Your task to perform on an android device: add a contact in the contacts app Image 0: 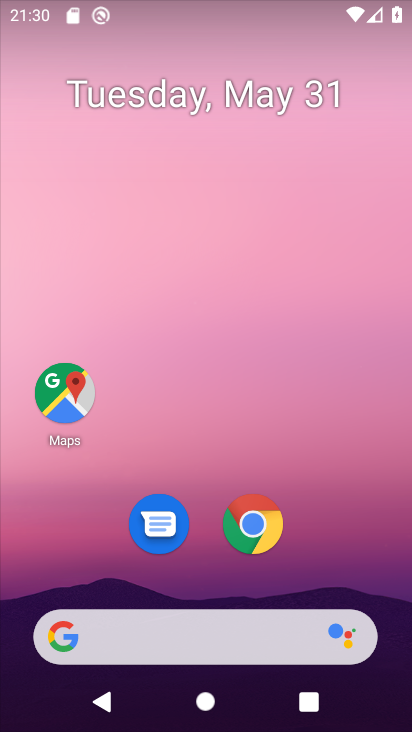
Step 0: drag from (247, 430) to (221, 3)
Your task to perform on an android device: add a contact in the contacts app Image 1: 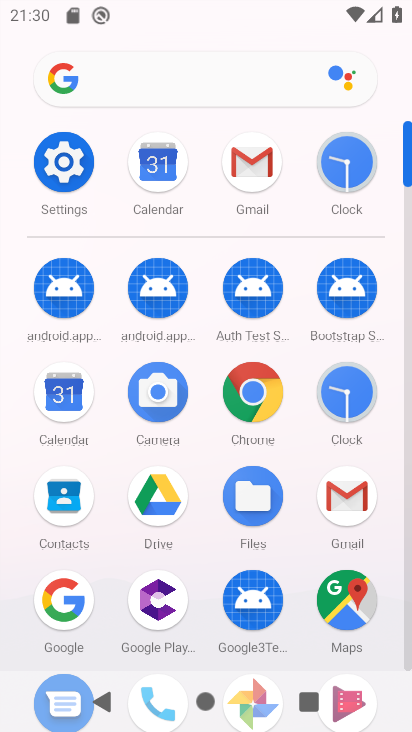
Step 1: click (67, 489)
Your task to perform on an android device: add a contact in the contacts app Image 2: 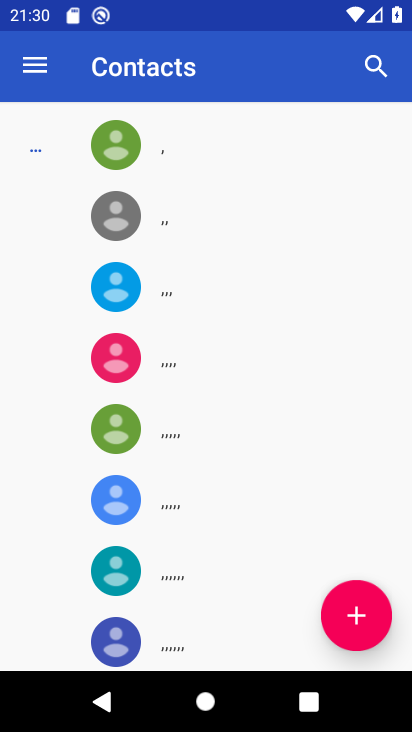
Step 2: click (354, 616)
Your task to perform on an android device: add a contact in the contacts app Image 3: 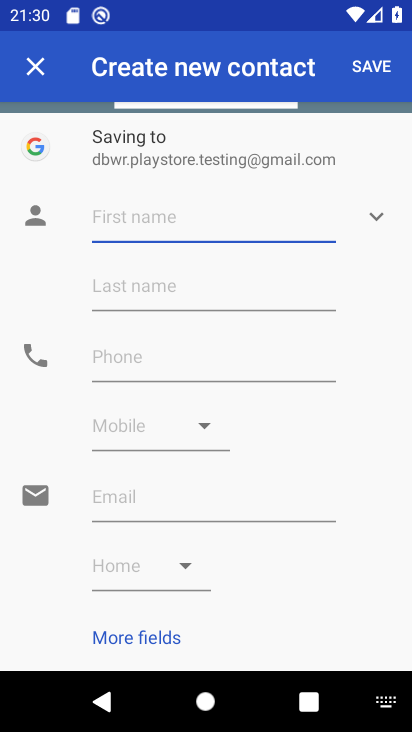
Step 3: type "Bhrmha Vishnu Mahesh"
Your task to perform on an android device: add a contact in the contacts app Image 4: 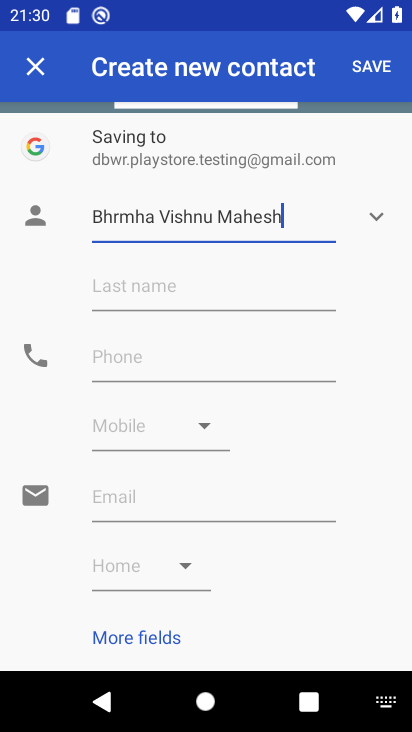
Step 4: click (212, 364)
Your task to perform on an android device: add a contact in the contacts app Image 5: 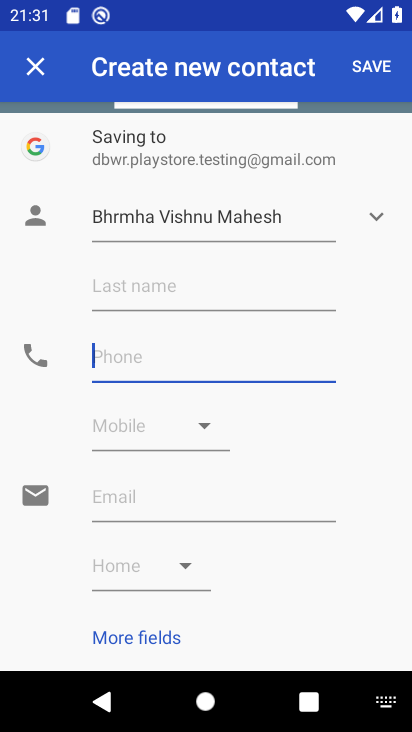
Step 5: type "01122300001"
Your task to perform on an android device: add a contact in the contacts app Image 6: 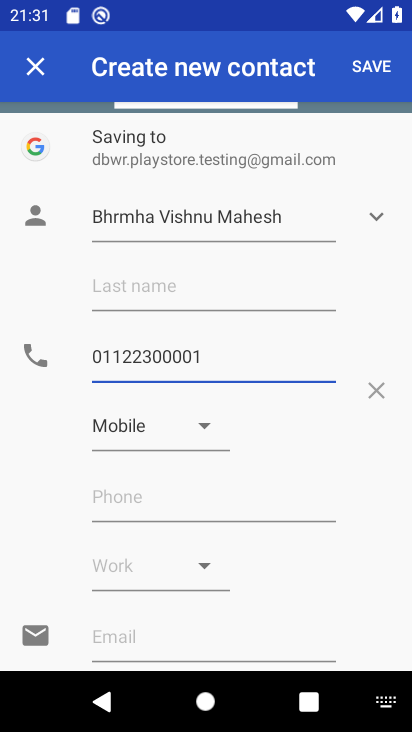
Step 6: click (374, 72)
Your task to perform on an android device: add a contact in the contacts app Image 7: 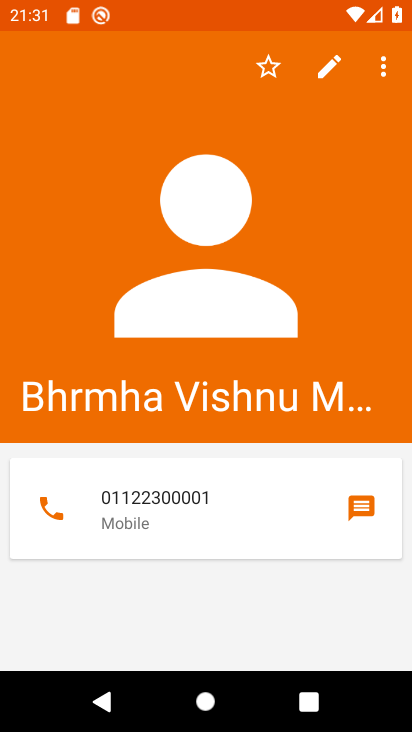
Step 7: task complete